Your task to perform on an android device: Open Google Image 0: 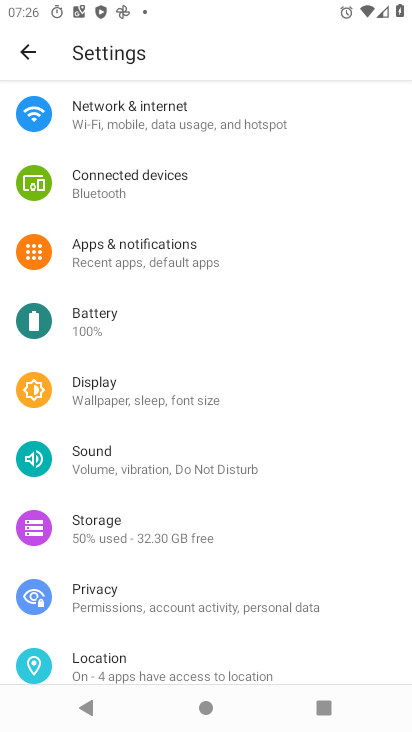
Step 0: press home button
Your task to perform on an android device: Open Google Image 1: 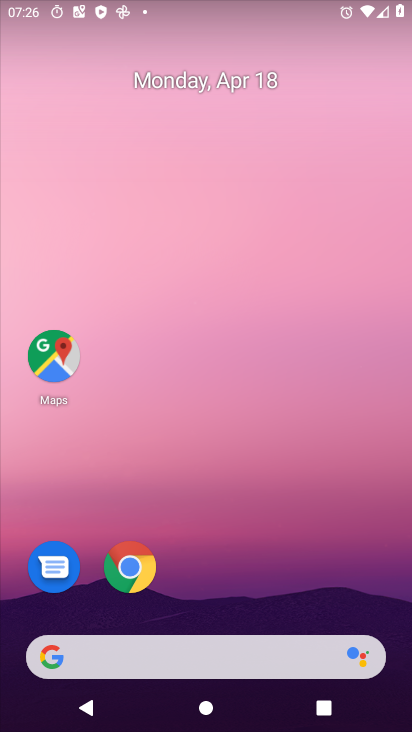
Step 1: drag from (323, 587) to (117, 54)
Your task to perform on an android device: Open Google Image 2: 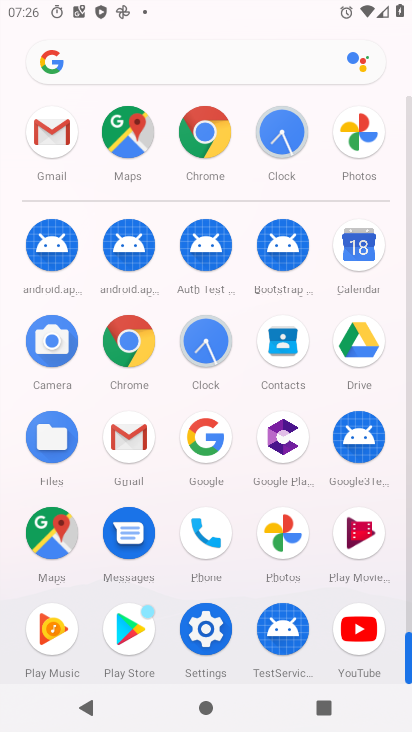
Step 2: click (204, 436)
Your task to perform on an android device: Open Google Image 3: 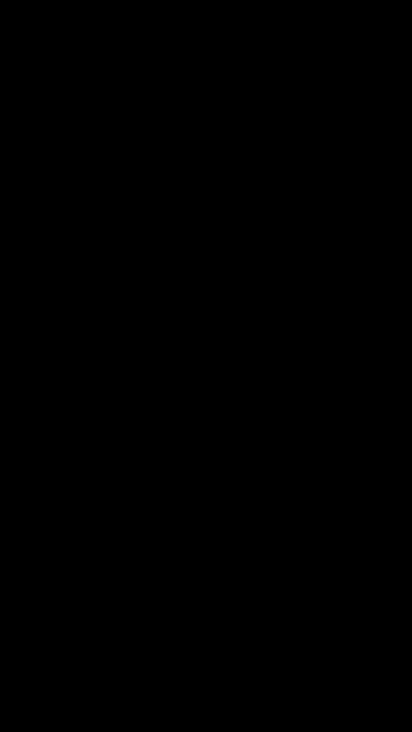
Step 3: task complete